Your task to perform on an android device: clear all cookies in the chrome app Image 0: 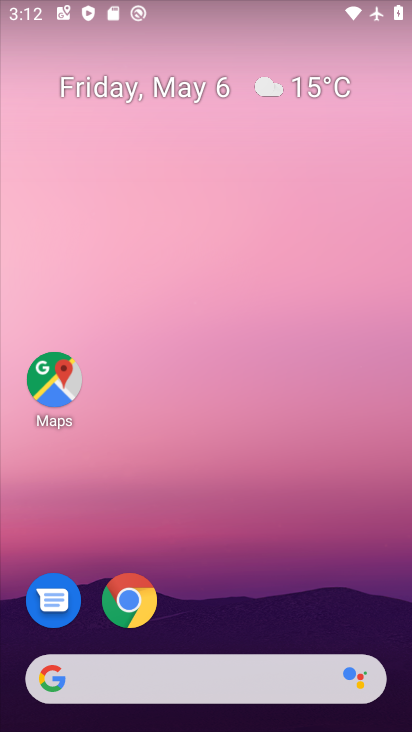
Step 0: drag from (284, 95) to (284, 1)
Your task to perform on an android device: clear all cookies in the chrome app Image 1: 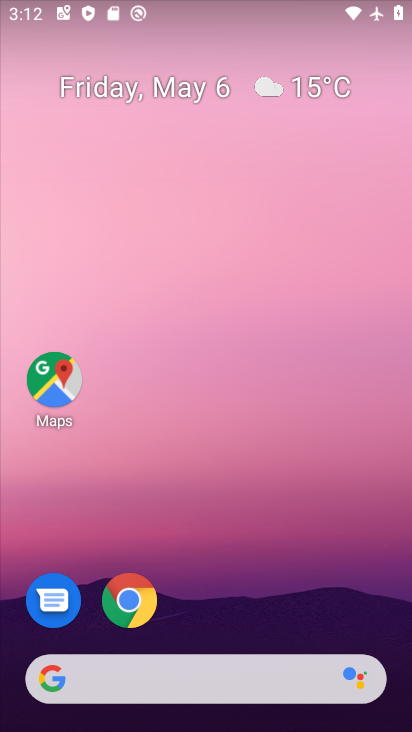
Step 1: drag from (367, 589) to (275, 9)
Your task to perform on an android device: clear all cookies in the chrome app Image 2: 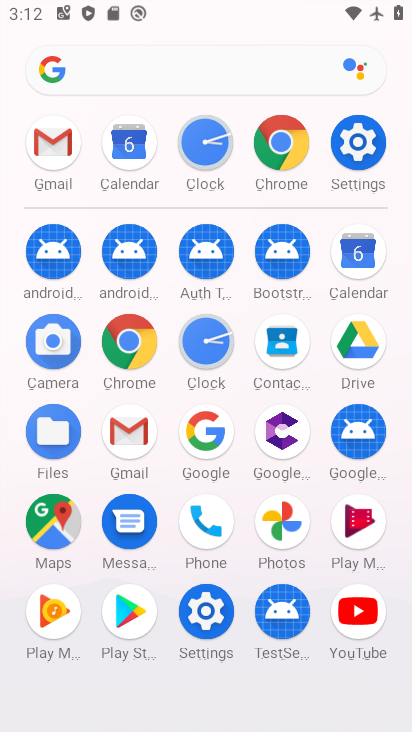
Step 2: drag from (7, 573) to (18, 199)
Your task to perform on an android device: clear all cookies in the chrome app Image 3: 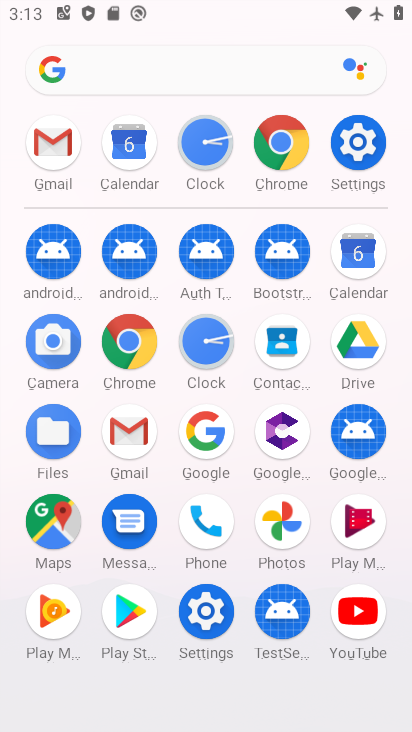
Step 3: click (129, 338)
Your task to perform on an android device: clear all cookies in the chrome app Image 4: 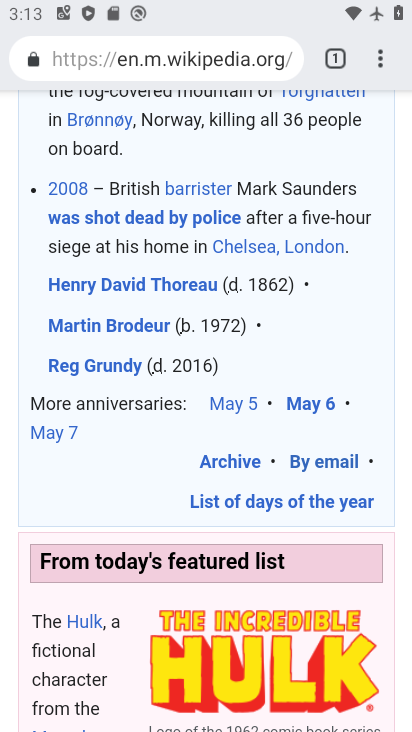
Step 4: drag from (384, 64) to (179, 625)
Your task to perform on an android device: clear all cookies in the chrome app Image 5: 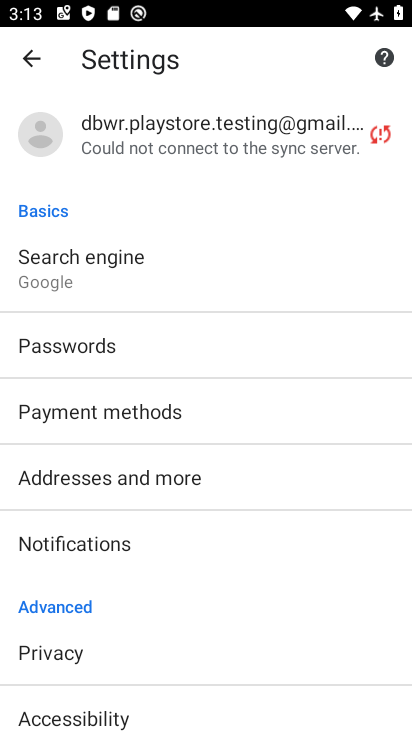
Step 5: drag from (242, 578) to (277, 166)
Your task to perform on an android device: clear all cookies in the chrome app Image 6: 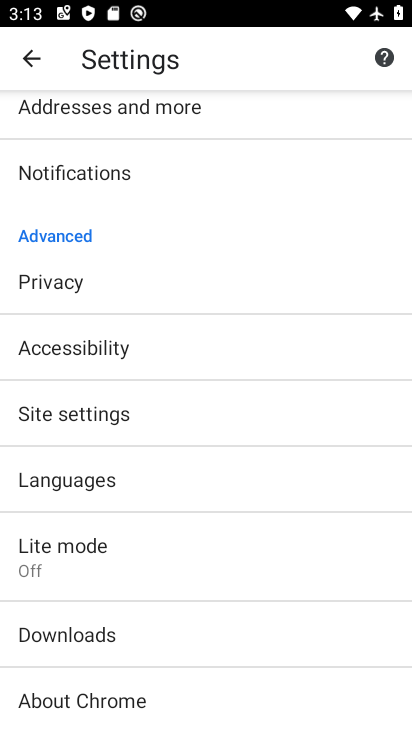
Step 6: drag from (194, 605) to (231, 259)
Your task to perform on an android device: clear all cookies in the chrome app Image 7: 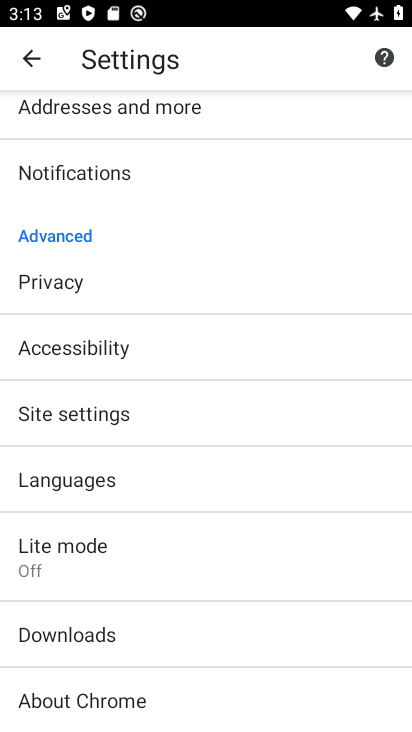
Step 7: drag from (179, 610) to (175, 239)
Your task to perform on an android device: clear all cookies in the chrome app Image 8: 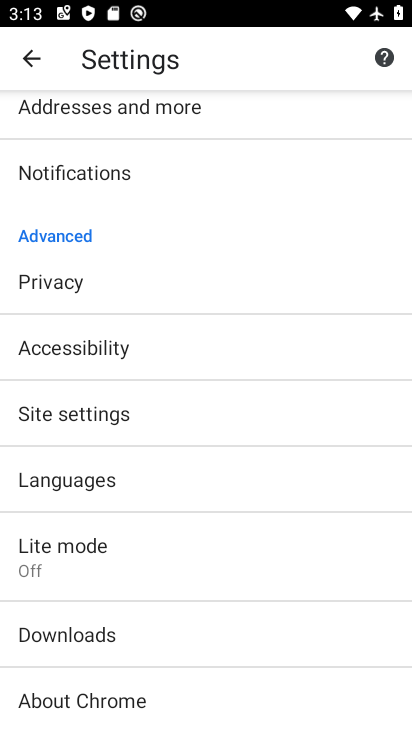
Step 8: click (127, 419)
Your task to perform on an android device: clear all cookies in the chrome app Image 9: 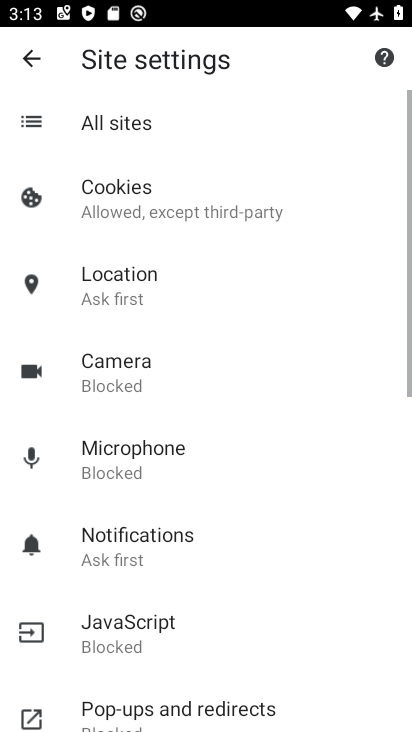
Step 9: drag from (271, 589) to (266, 97)
Your task to perform on an android device: clear all cookies in the chrome app Image 10: 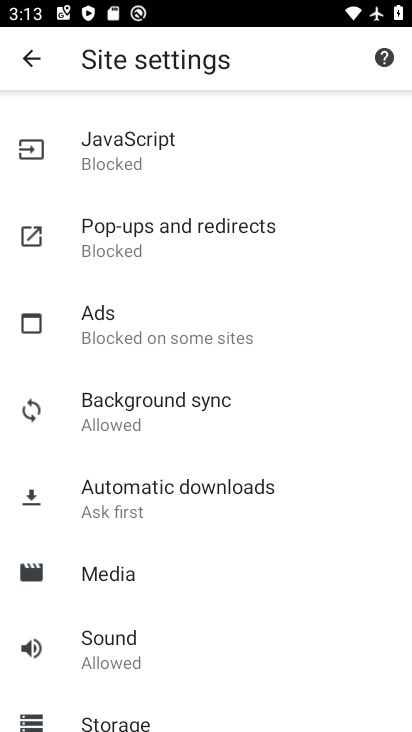
Step 10: drag from (229, 578) to (223, 127)
Your task to perform on an android device: clear all cookies in the chrome app Image 11: 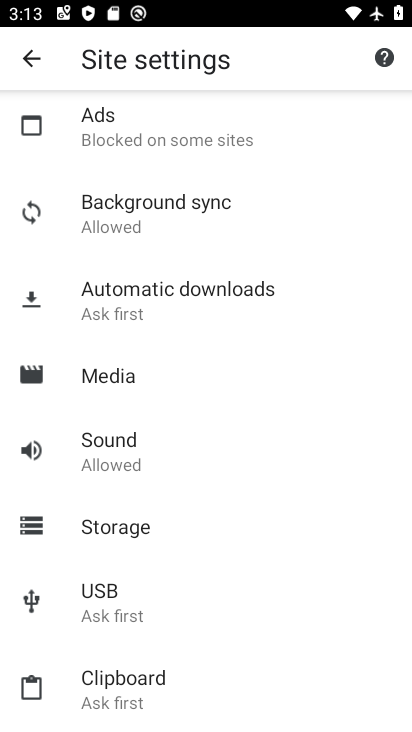
Step 11: drag from (295, 229) to (297, 617)
Your task to perform on an android device: clear all cookies in the chrome app Image 12: 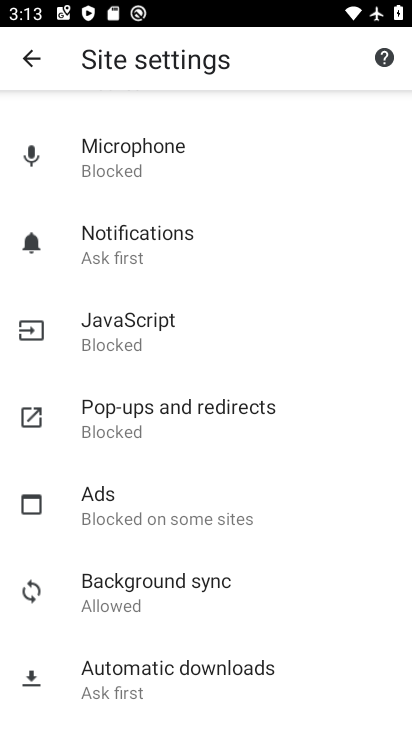
Step 12: drag from (283, 620) to (288, 201)
Your task to perform on an android device: clear all cookies in the chrome app Image 13: 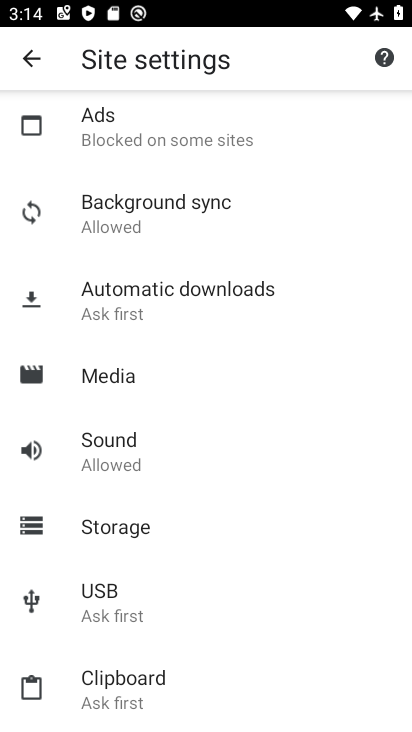
Step 13: drag from (243, 174) to (233, 604)
Your task to perform on an android device: clear all cookies in the chrome app Image 14: 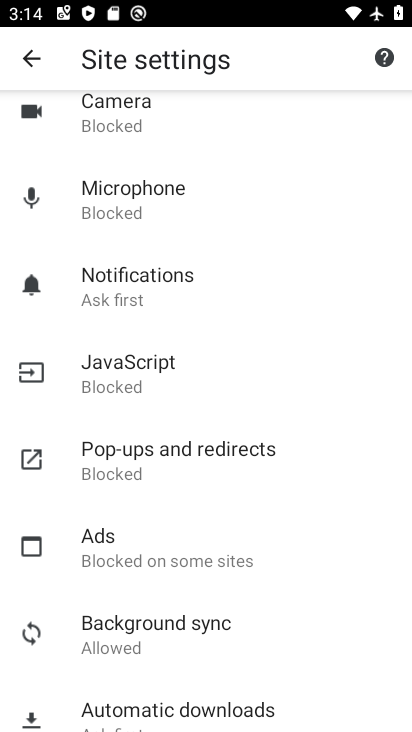
Step 14: drag from (237, 245) to (239, 592)
Your task to perform on an android device: clear all cookies in the chrome app Image 15: 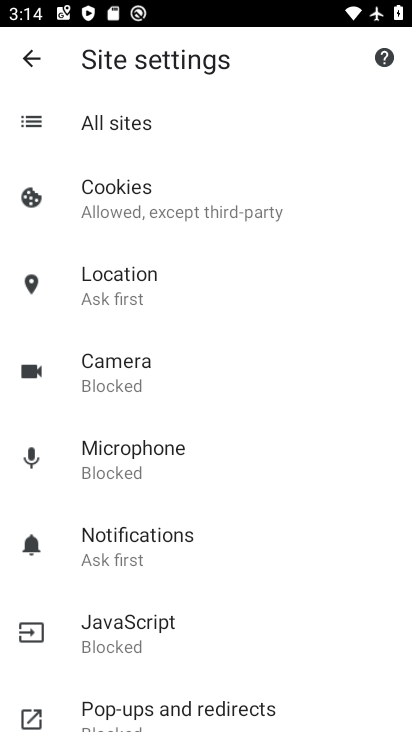
Step 15: drag from (201, 647) to (250, 206)
Your task to perform on an android device: clear all cookies in the chrome app Image 16: 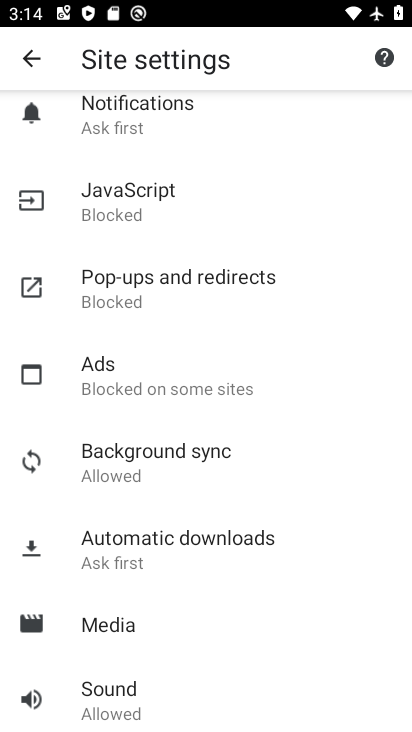
Step 16: drag from (214, 590) to (233, 150)
Your task to perform on an android device: clear all cookies in the chrome app Image 17: 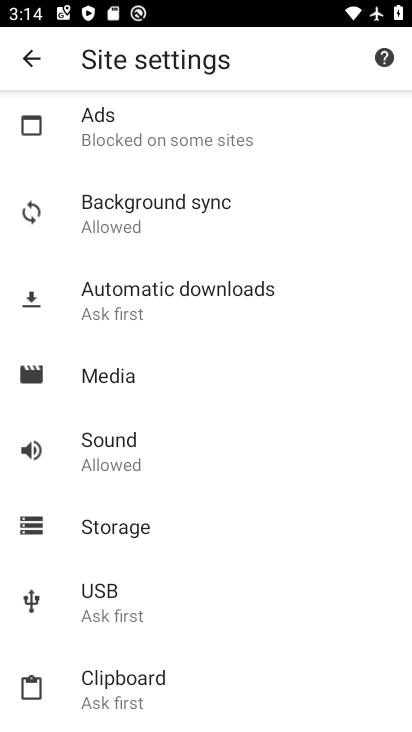
Step 17: click (28, 54)
Your task to perform on an android device: clear all cookies in the chrome app Image 18: 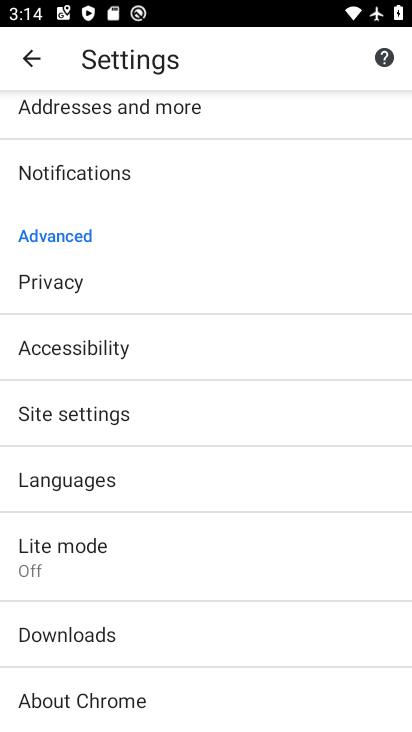
Step 18: click (87, 287)
Your task to perform on an android device: clear all cookies in the chrome app Image 19: 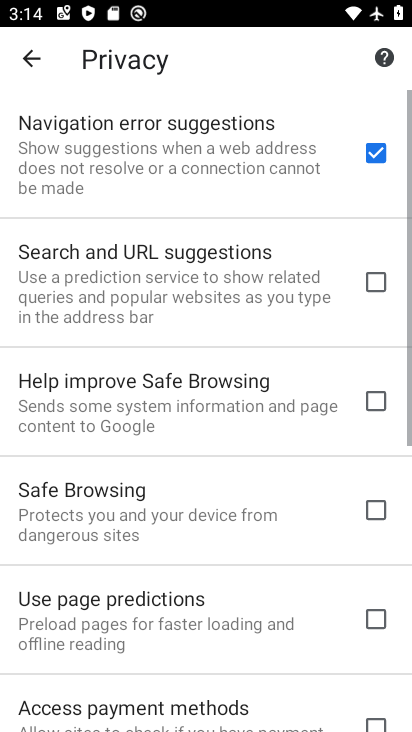
Step 19: drag from (170, 628) to (211, 137)
Your task to perform on an android device: clear all cookies in the chrome app Image 20: 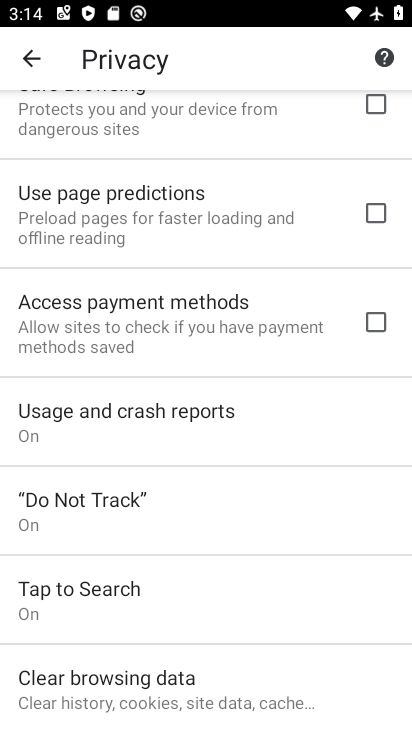
Step 20: drag from (214, 630) to (211, 136)
Your task to perform on an android device: clear all cookies in the chrome app Image 21: 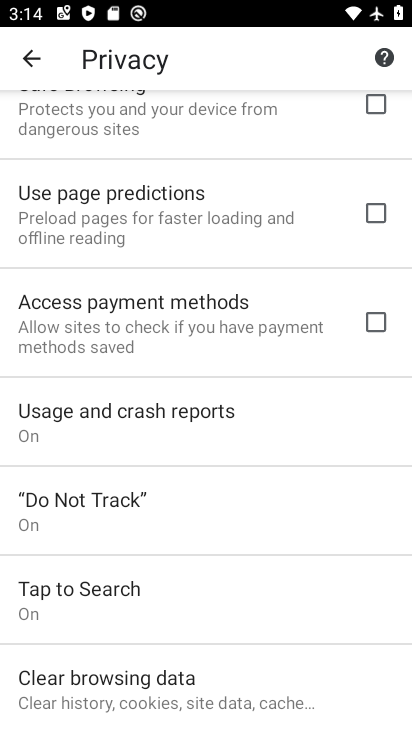
Step 21: click (152, 678)
Your task to perform on an android device: clear all cookies in the chrome app Image 22: 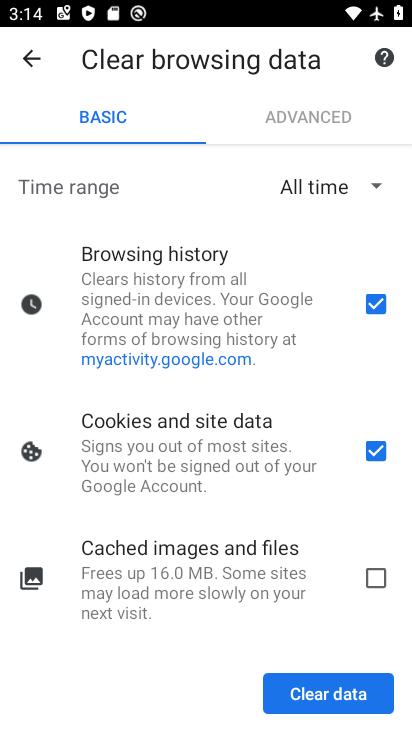
Step 22: click (314, 685)
Your task to perform on an android device: clear all cookies in the chrome app Image 23: 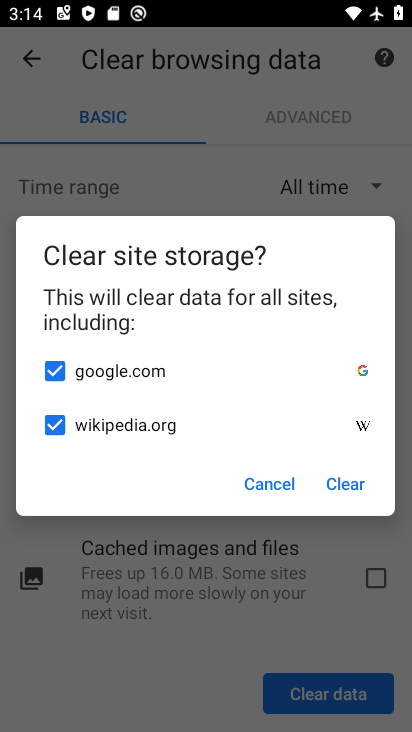
Step 23: click (345, 487)
Your task to perform on an android device: clear all cookies in the chrome app Image 24: 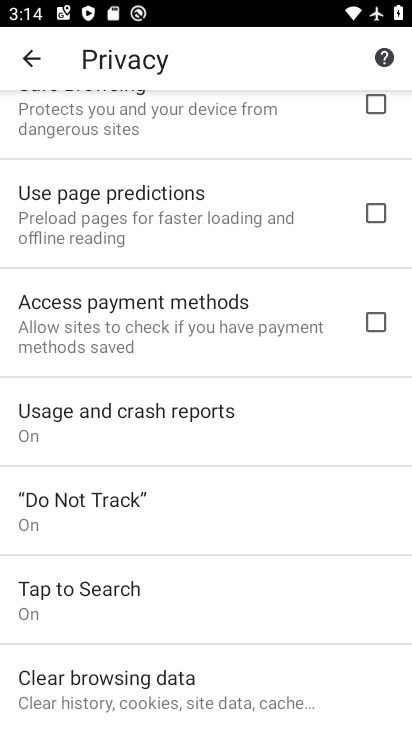
Step 24: drag from (290, 680) to (289, 188)
Your task to perform on an android device: clear all cookies in the chrome app Image 25: 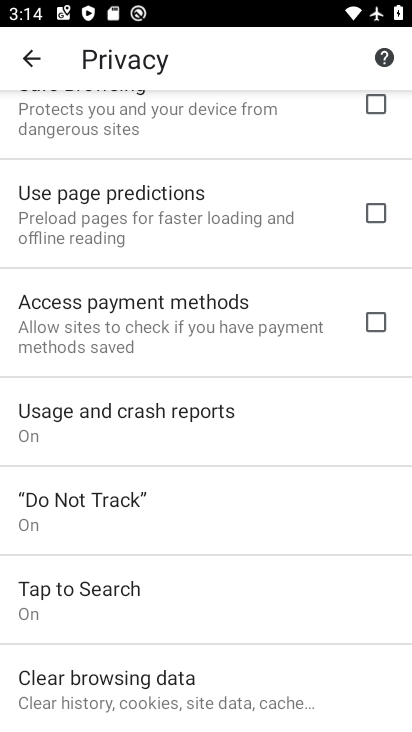
Step 25: click (233, 668)
Your task to perform on an android device: clear all cookies in the chrome app Image 26: 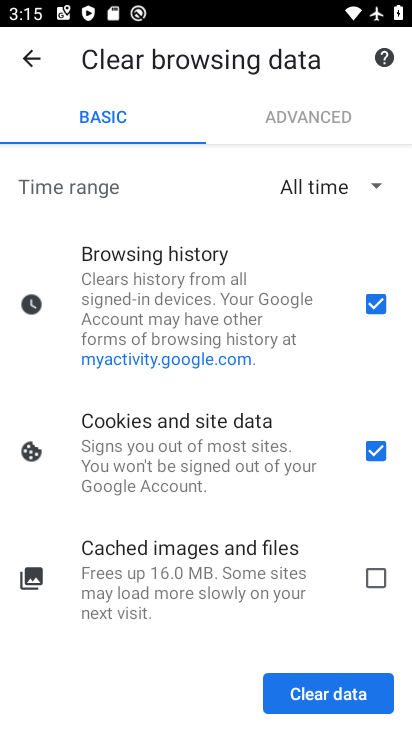
Step 26: click (363, 570)
Your task to perform on an android device: clear all cookies in the chrome app Image 27: 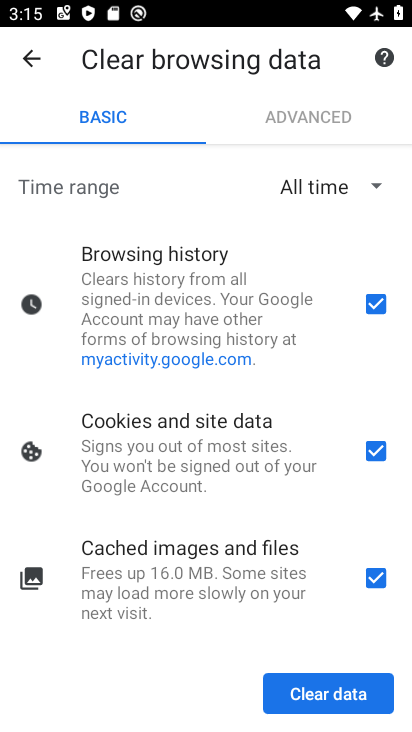
Step 27: click (370, 451)
Your task to perform on an android device: clear all cookies in the chrome app Image 28: 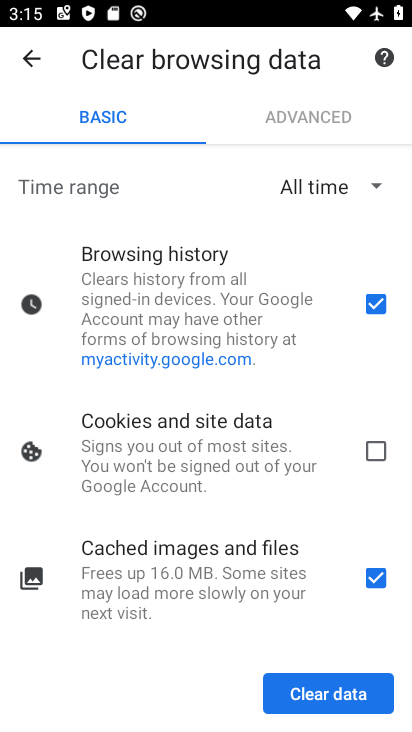
Step 28: click (373, 289)
Your task to perform on an android device: clear all cookies in the chrome app Image 29: 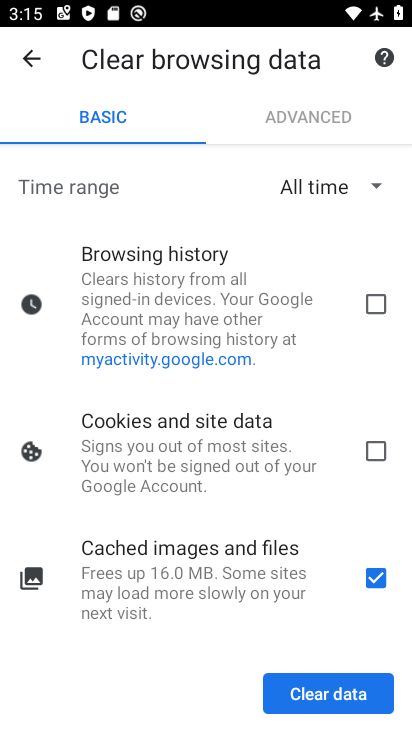
Step 29: click (300, 102)
Your task to perform on an android device: clear all cookies in the chrome app Image 30: 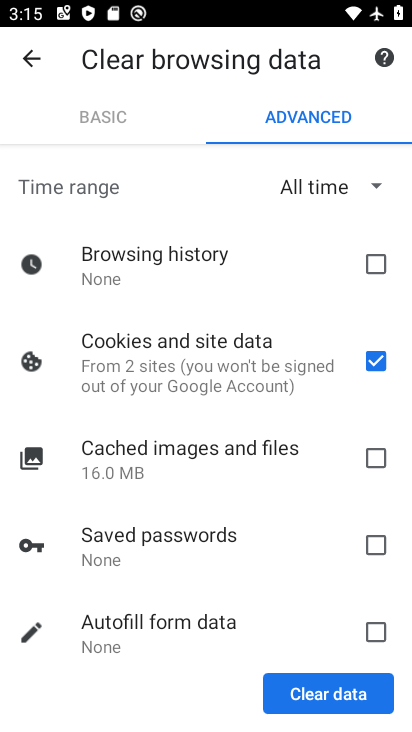
Step 30: click (124, 125)
Your task to perform on an android device: clear all cookies in the chrome app Image 31: 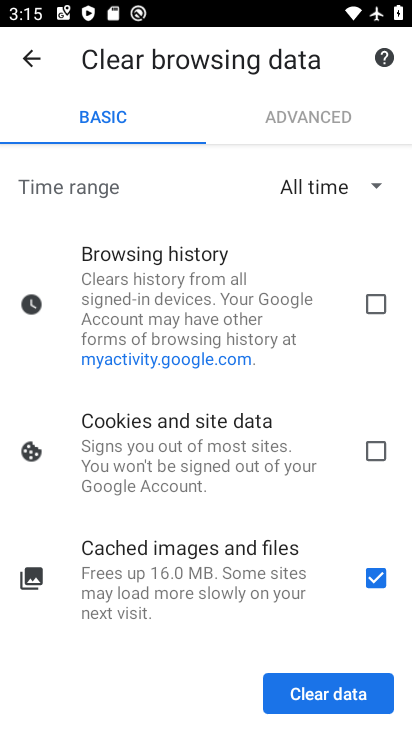
Step 31: click (302, 691)
Your task to perform on an android device: clear all cookies in the chrome app Image 32: 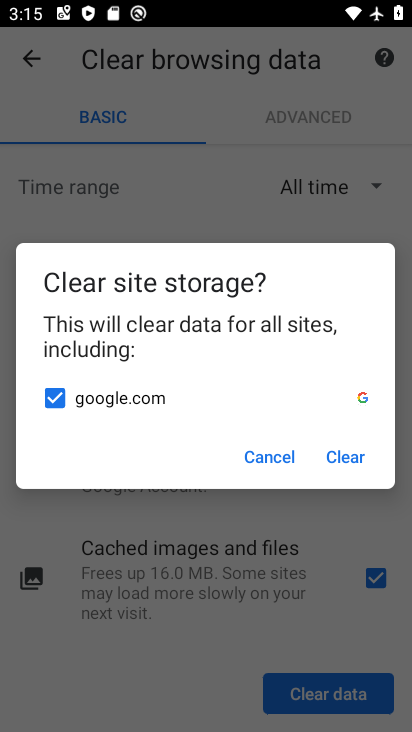
Step 32: click (342, 453)
Your task to perform on an android device: clear all cookies in the chrome app Image 33: 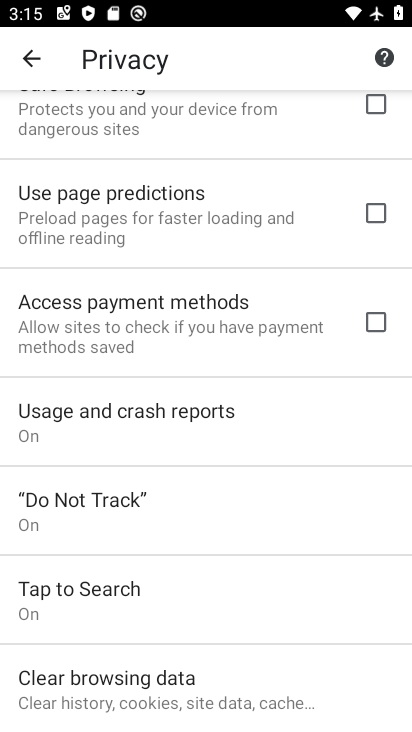
Step 33: drag from (229, 220) to (225, 568)
Your task to perform on an android device: clear all cookies in the chrome app Image 34: 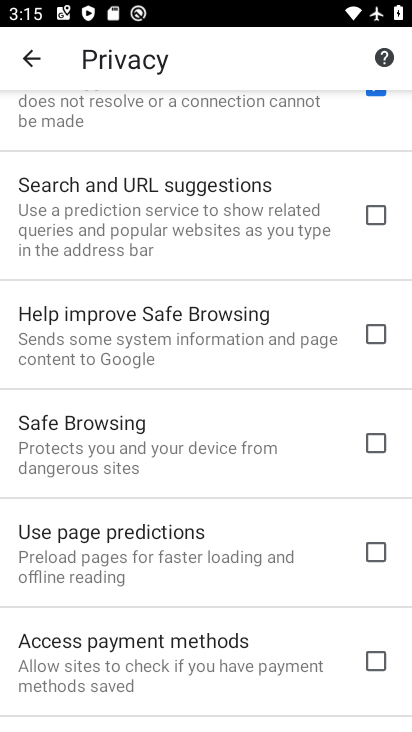
Step 34: drag from (217, 602) to (206, 148)
Your task to perform on an android device: clear all cookies in the chrome app Image 35: 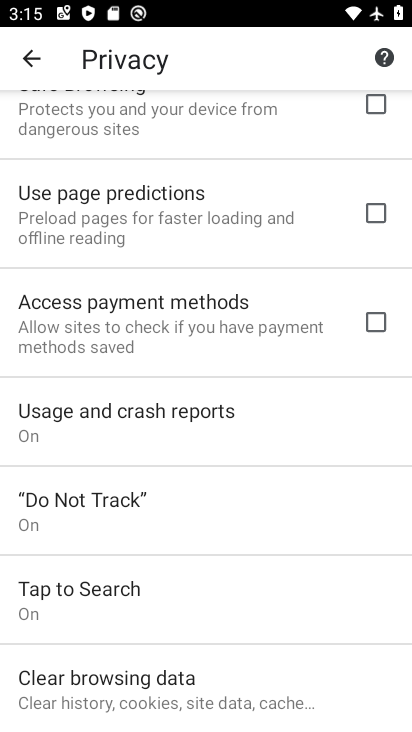
Step 35: click (189, 679)
Your task to perform on an android device: clear all cookies in the chrome app Image 36: 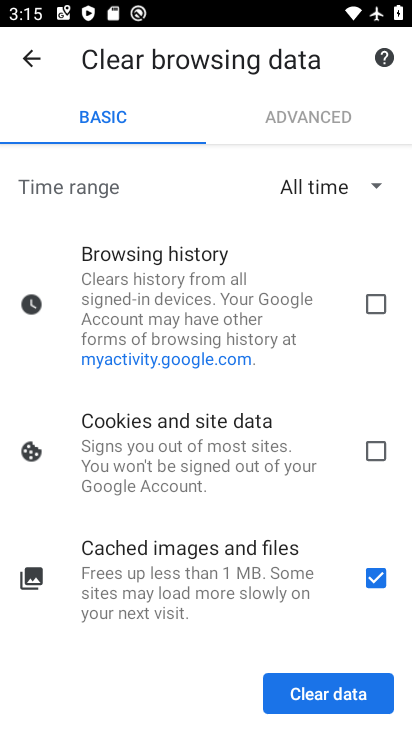
Step 36: click (341, 681)
Your task to perform on an android device: clear all cookies in the chrome app Image 37: 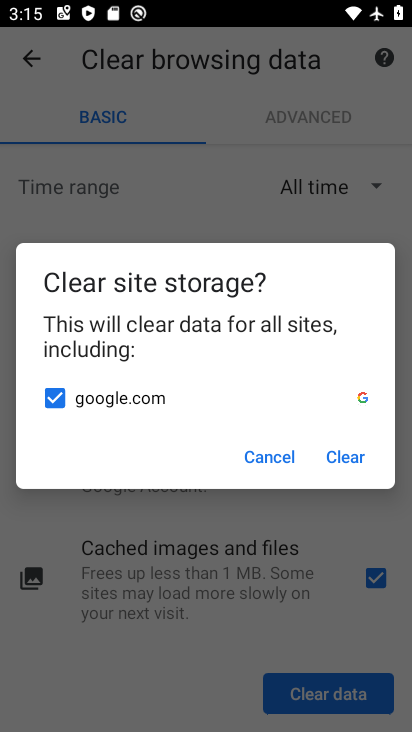
Step 37: click (349, 457)
Your task to perform on an android device: clear all cookies in the chrome app Image 38: 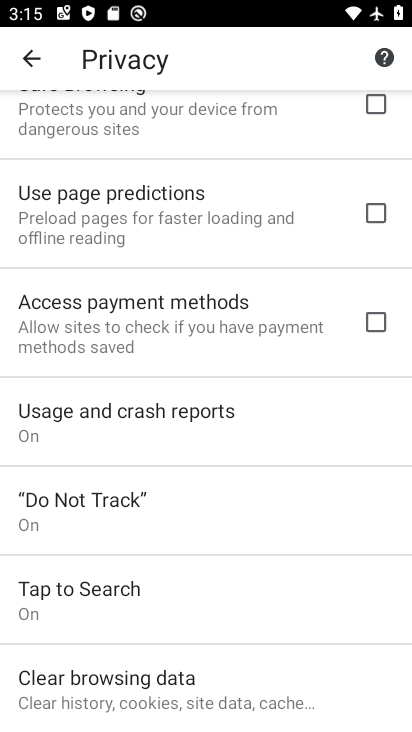
Step 38: task complete